Your task to perform on an android device: Open the Play Movies app and select the watchlist tab. Image 0: 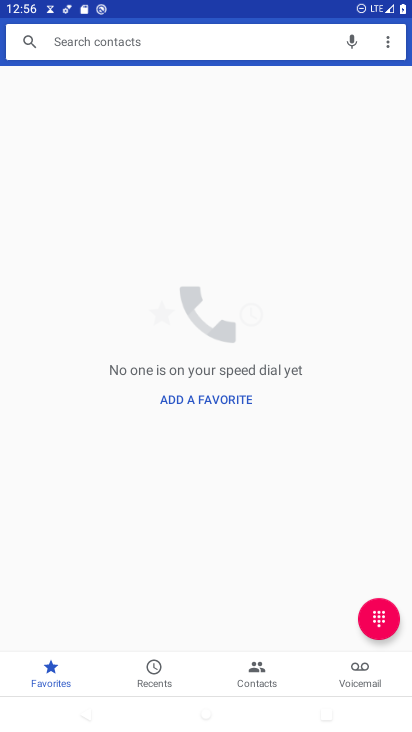
Step 0: press home button
Your task to perform on an android device: Open the Play Movies app and select the watchlist tab. Image 1: 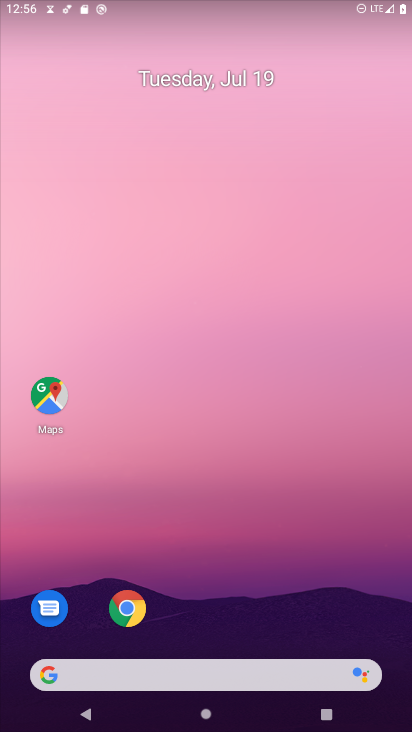
Step 1: drag from (152, 650) to (137, 8)
Your task to perform on an android device: Open the Play Movies app and select the watchlist tab. Image 2: 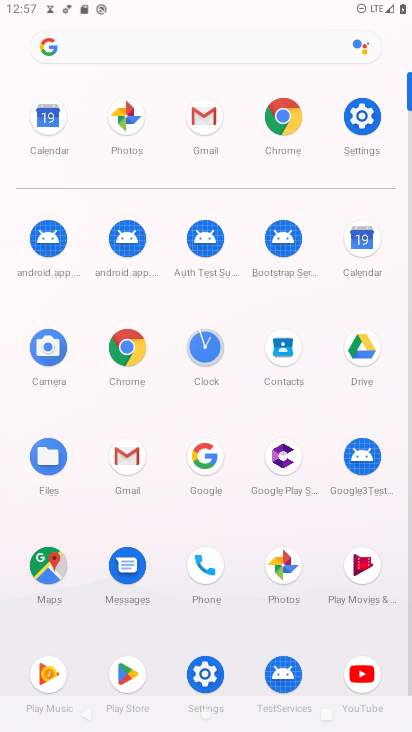
Step 2: click (366, 567)
Your task to perform on an android device: Open the Play Movies app and select the watchlist tab. Image 3: 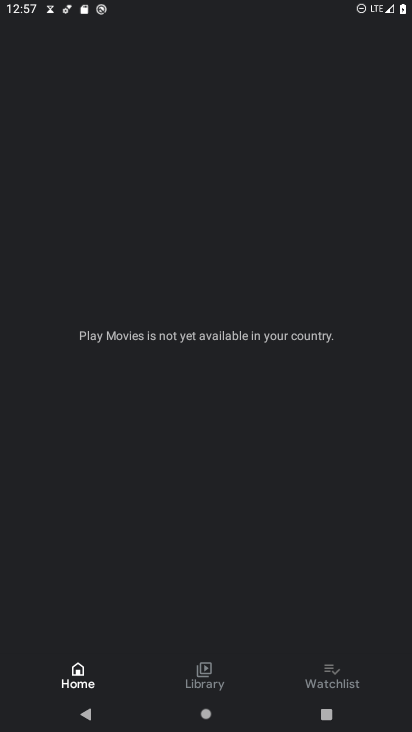
Step 3: click (344, 671)
Your task to perform on an android device: Open the Play Movies app and select the watchlist tab. Image 4: 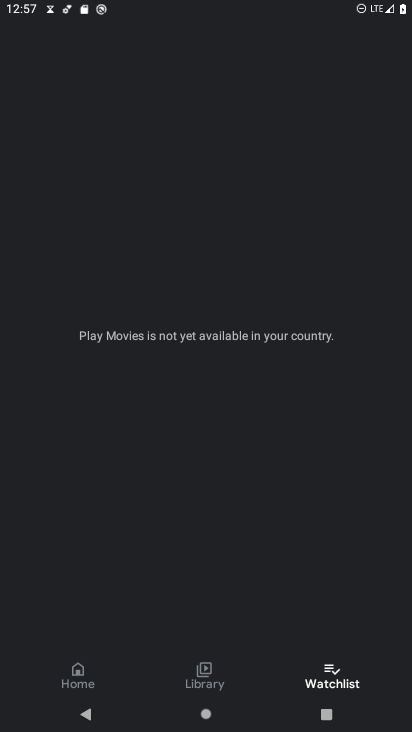
Step 4: task complete